Your task to perform on an android device: Open network settings Image 0: 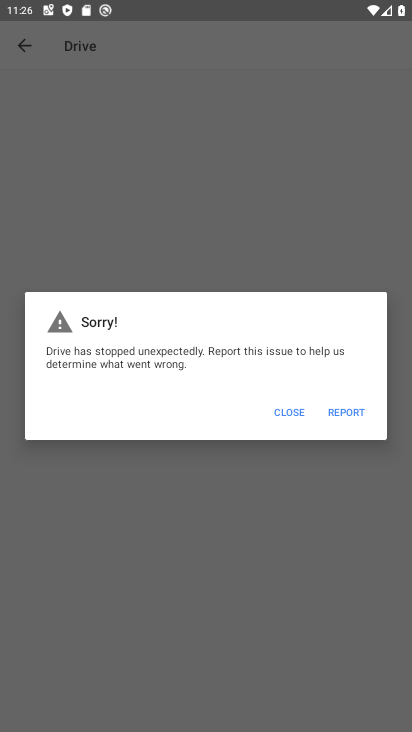
Step 0: press home button
Your task to perform on an android device: Open network settings Image 1: 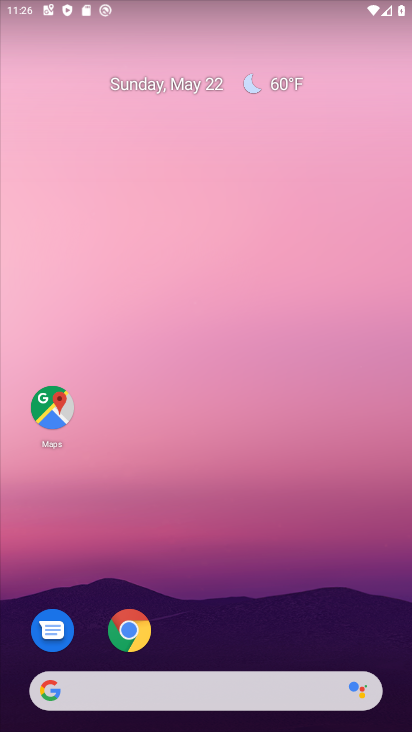
Step 1: drag from (231, 596) to (153, 47)
Your task to perform on an android device: Open network settings Image 2: 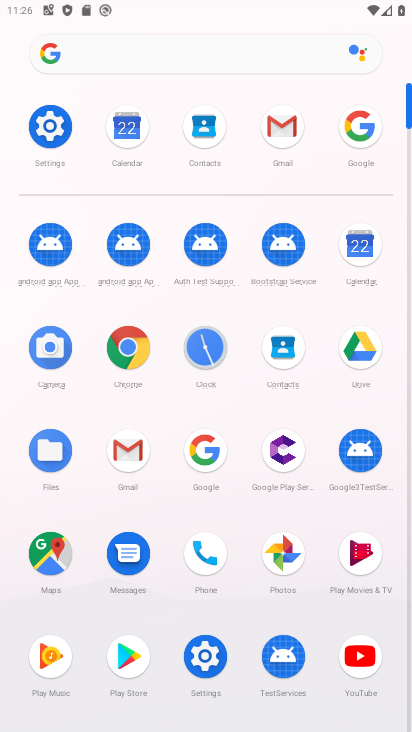
Step 2: click (206, 658)
Your task to perform on an android device: Open network settings Image 3: 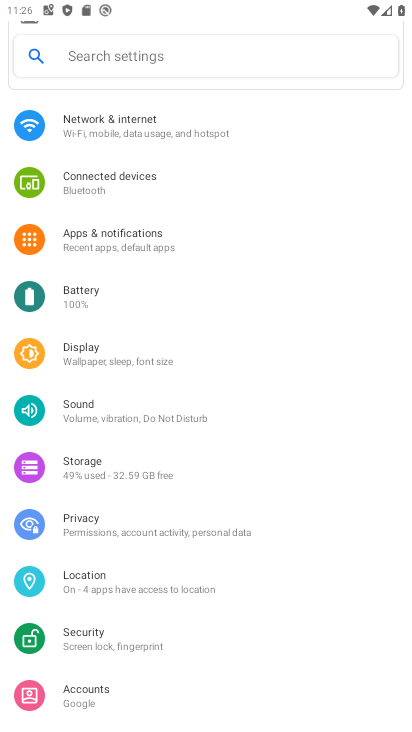
Step 3: click (110, 119)
Your task to perform on an android device: Open network settings Image 4: 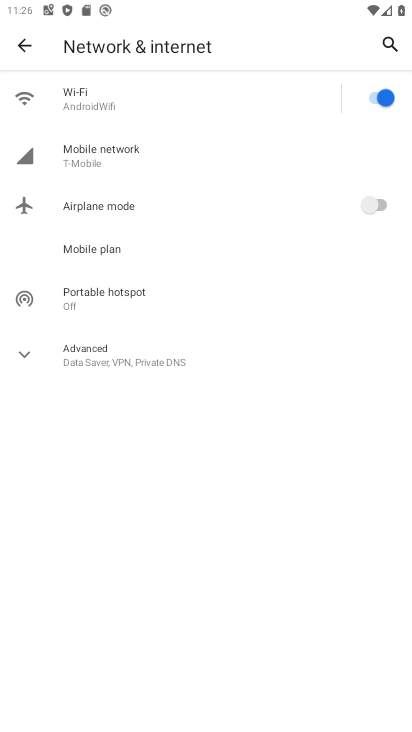
Step 4: click (90, 147)
Your task to perform on an android device: Open network settings Image 5: 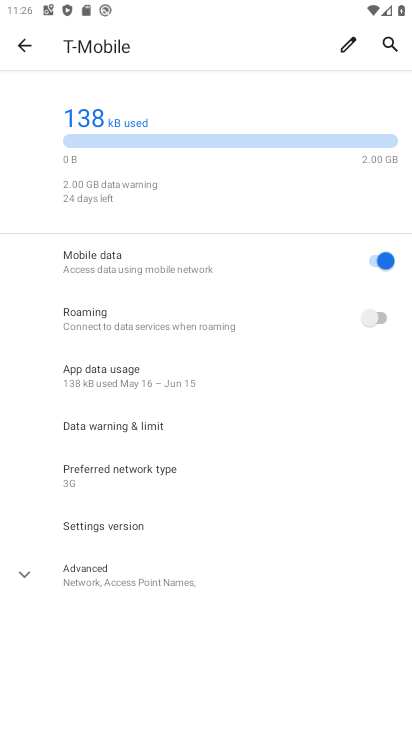
Step 5: task complete